Your task to perform on an android device: Go to Google Image 0: 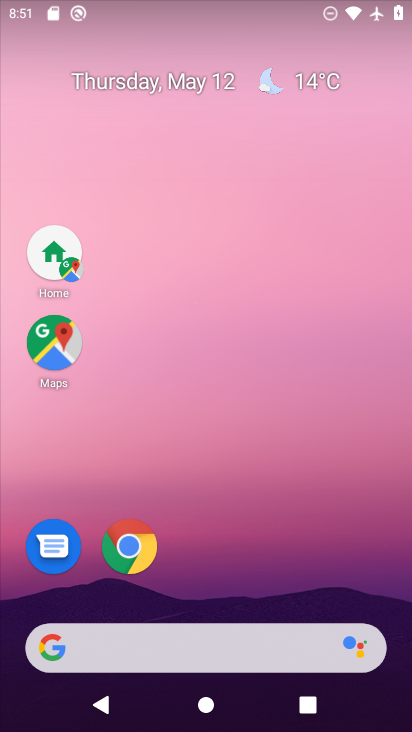
Step 0: drag from (177, 629) to (347, 70)
Your task to perform on an android device: Go to Google Image 1: 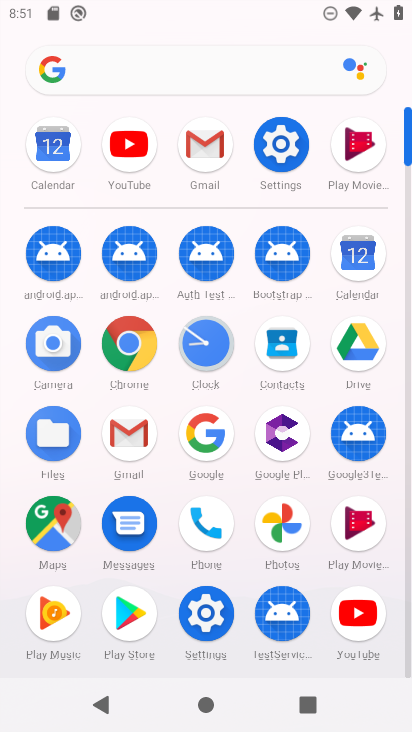
Step 1: click (212, 451)
Your task to perform on an android device: Go to Google Image 2: 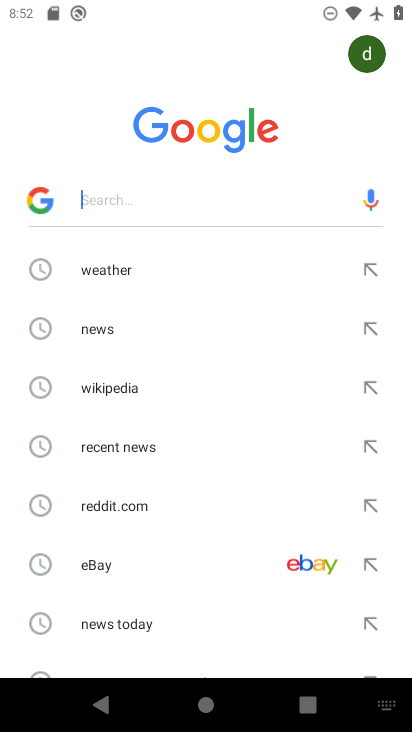
Step 2: task complete